Your task to perform on an android device: Open calendar and show me the fourth week of next month Image 0: 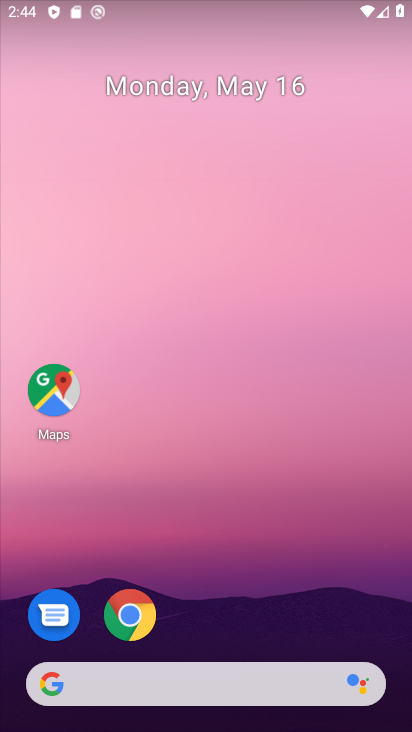
Step 0: drag from (359, 631) to (406, 13)
Your task to perform on an android device: Open calendar and show me the fourth week of next month Image 1: 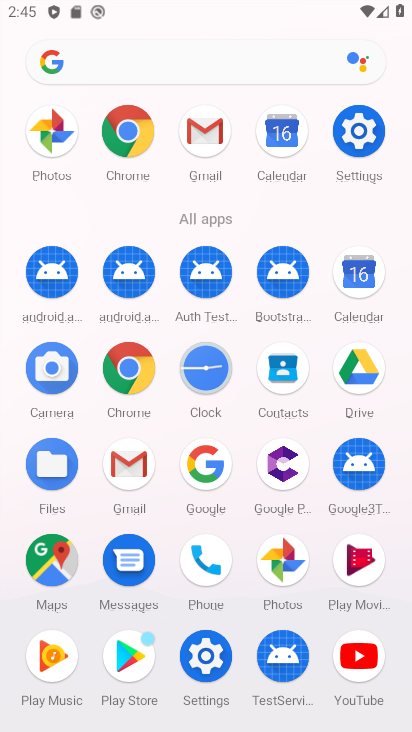
Step 1: click (289, 135)
Your task to perform on an android device: Open calendar and show me the fourth week of next month Image 2: 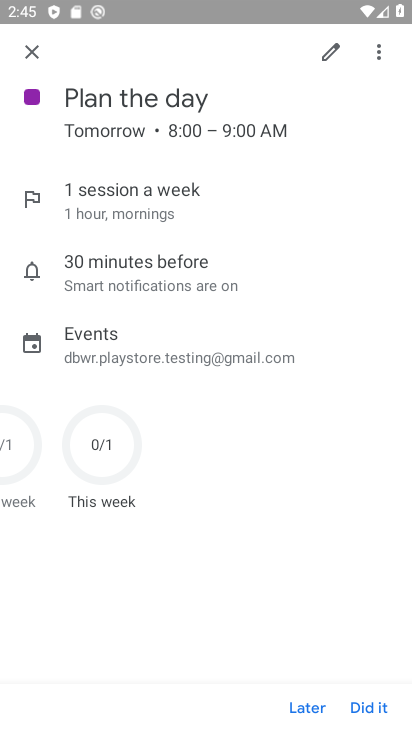
Step 2: click (33, 53)
Your task to perform on an android device: Open calendar and show me the fourth week of next month Image 3: 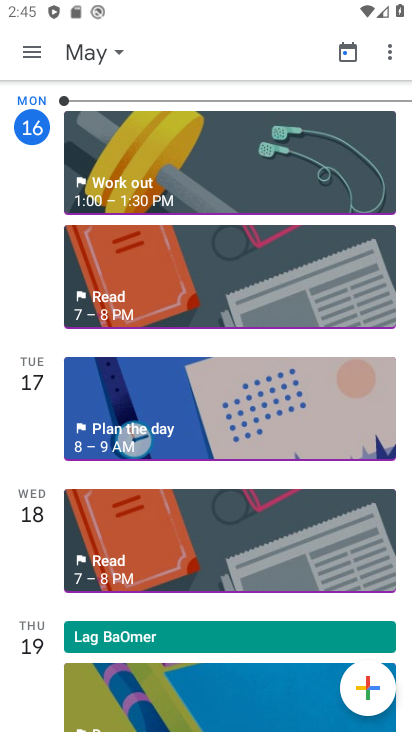
Step 3: click (119, 54)
Your task to perform on an android device: Open calendar and show me the fourth week of next month Image 4: 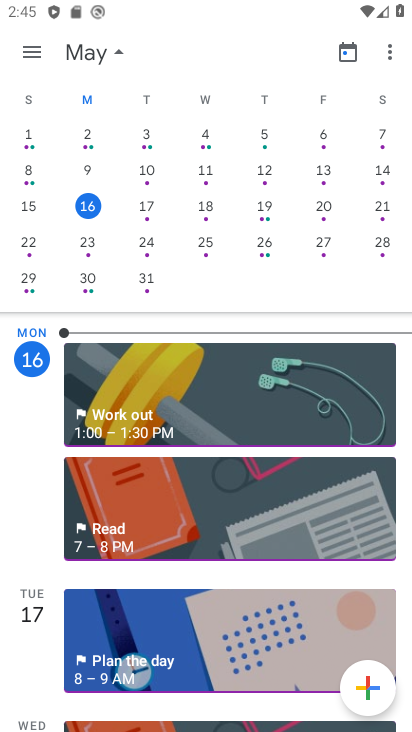
Step 4: drag from (306, 182) to (4, 326)
Your task to perform on an android device: Open calendar and show me the fourth week of next month Image 5: 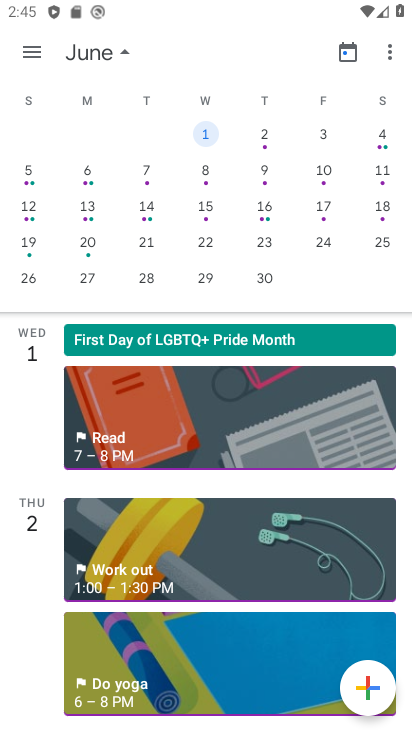
Step 5: click (27, 54)
Your task to perform on an android device: Open calendar and show me the fourth week of next month Image 6: 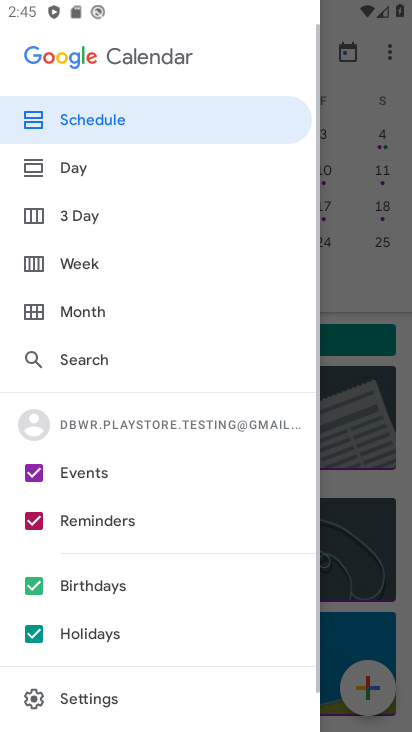
Step 6: click (69, 259)
Your task to perform on an android device: Open calendar and show me the fourth week of next month Image 7: 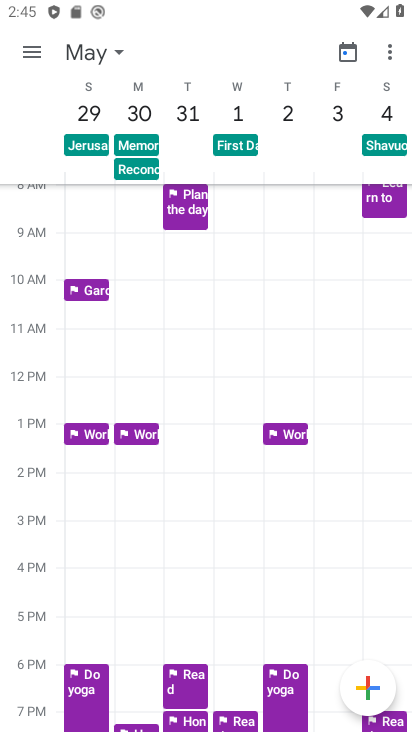
Step 7: task complete